Your task to perform on an android device: check android version Image 0: 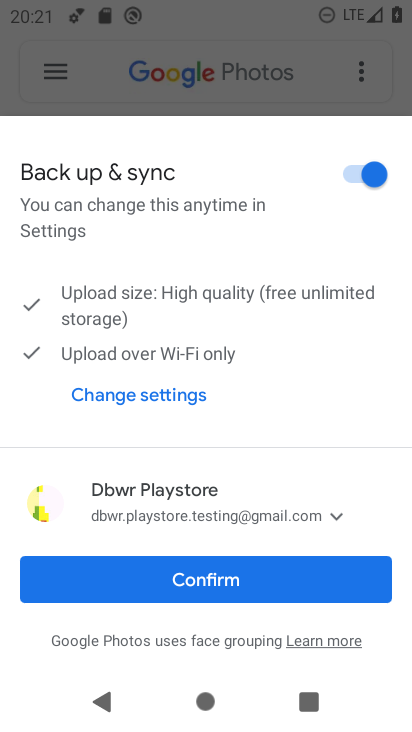
Step 0: press home button
Your task to perform on an android device: check android version Image 1: 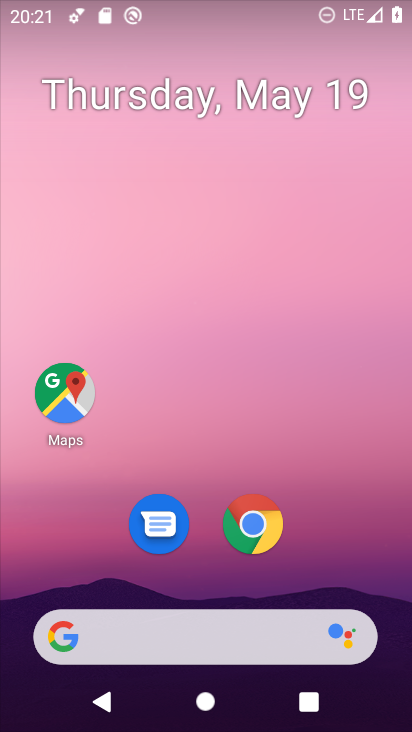
Step 1: drag from (301, 526) to (308, 8)
Your task to perform on an android device: check android version Image 2: 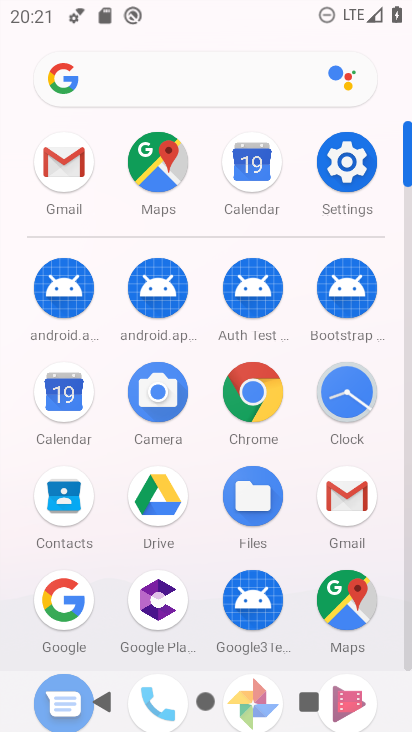
Step 2: click (344, 161)
Your task to perform on an android device: check android version Image 3: 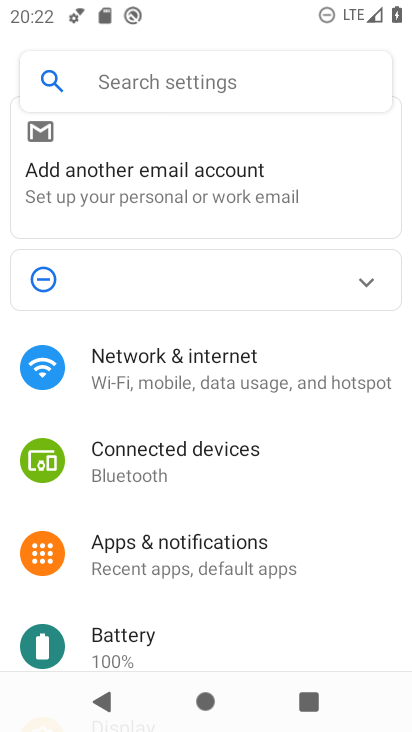
Step 3: drag from (234, 589) to (273, 1)
Your task to perform on an android device: check android version Image 4: 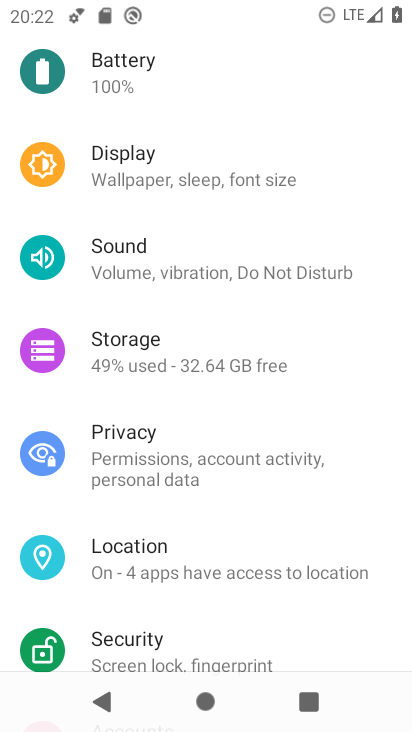
Step 4: drag from (183, 526) to (248, 0)
Your task to perform on an android device: check android version Image 5: 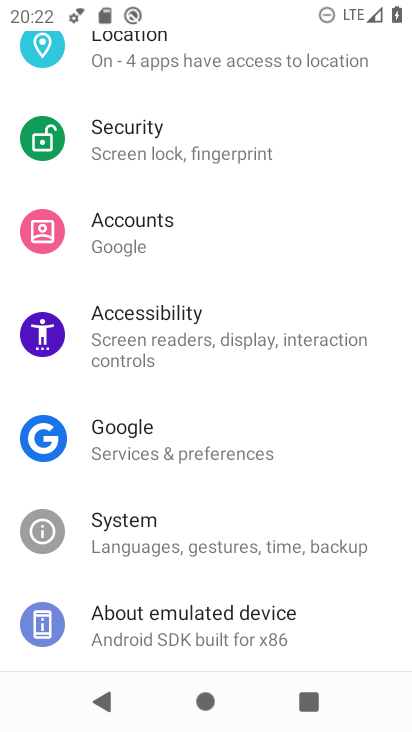
Step 5: click (189, 616)
Your task to perform on an android device: check android version Image 6: 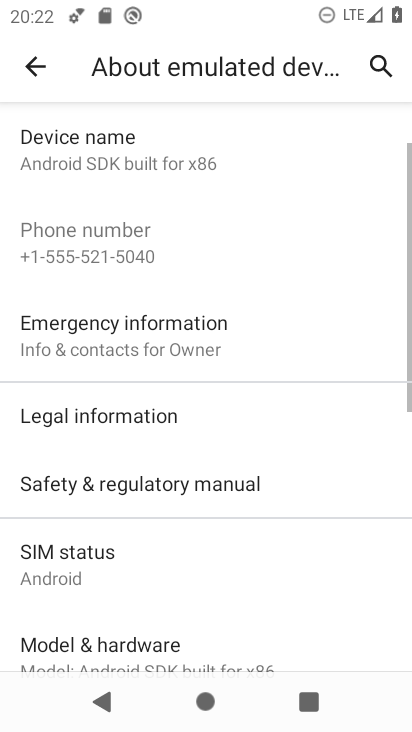
Step 6: task complete